Your task to perform on an android device: Go to notification settings Image 0: 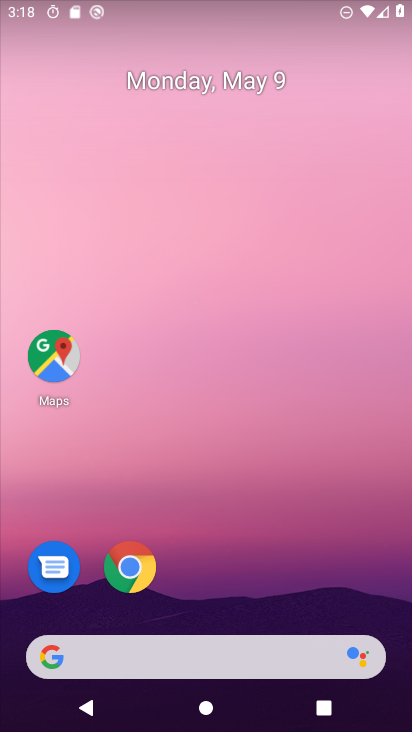
Step 0: drag from (235, 603) to (298, 78)
Your task to perform on an android device: Go to notification settings Image 1: 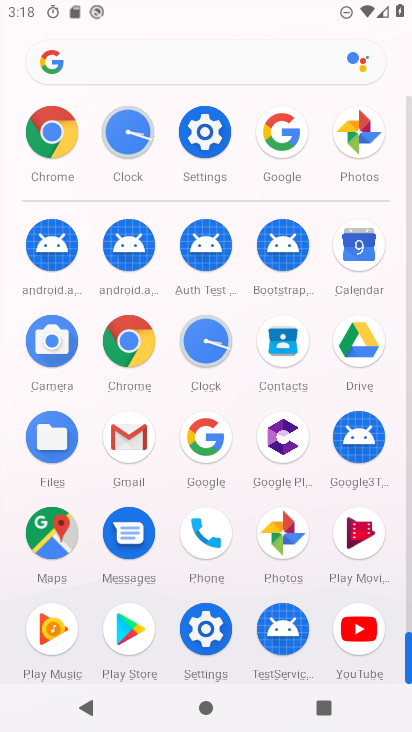
Step 1: click (208, 134)
Your task to perform on an android device: Go to notification settings Image 2: 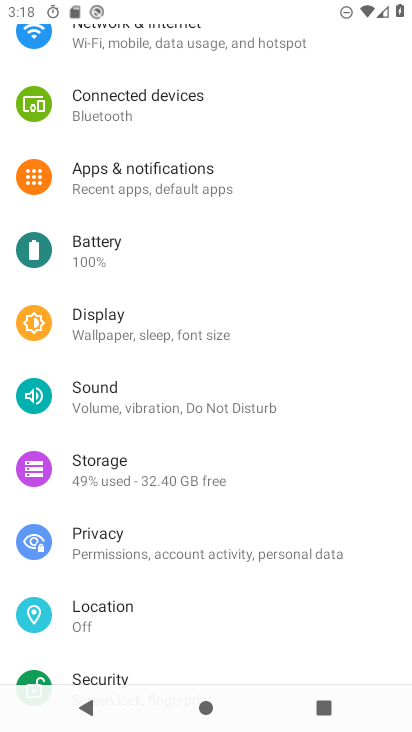
Step 2: click (197, 180)
Your task to perform on an android device: Go to notification settings Image 3: 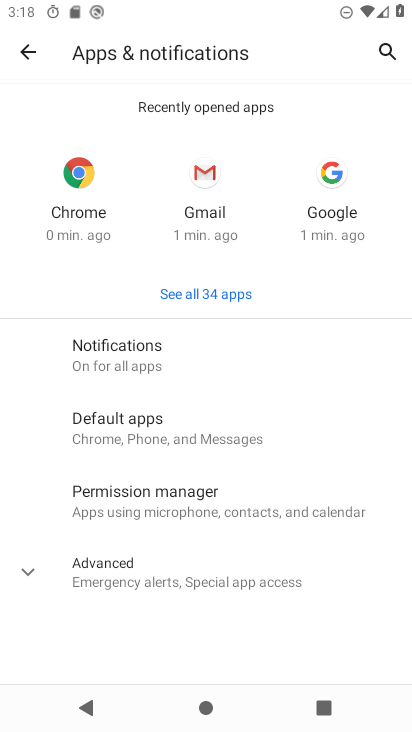
Step 3: task complete